Your task to perform on an android device: set the timer Image 0: 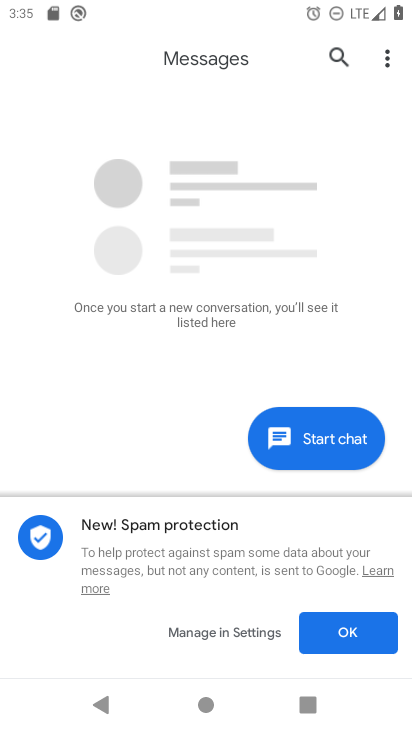
Step 0: press home button
Your task to perform on an android device: set the timer Image 1: 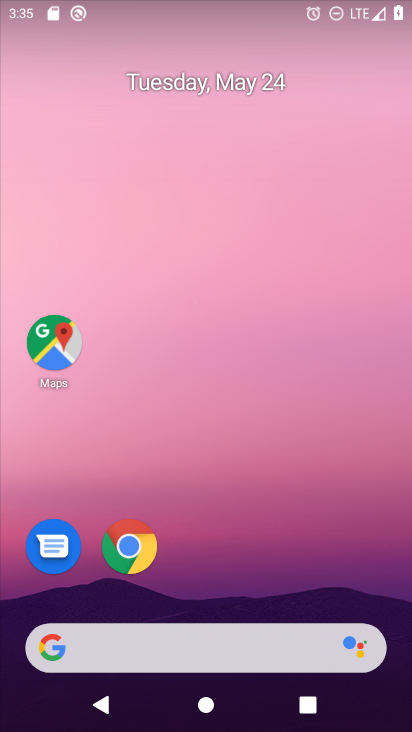
Step 1: drag from (216, 627) to (197, 86)
Your task to perform on an android device: set the timer Image 2: 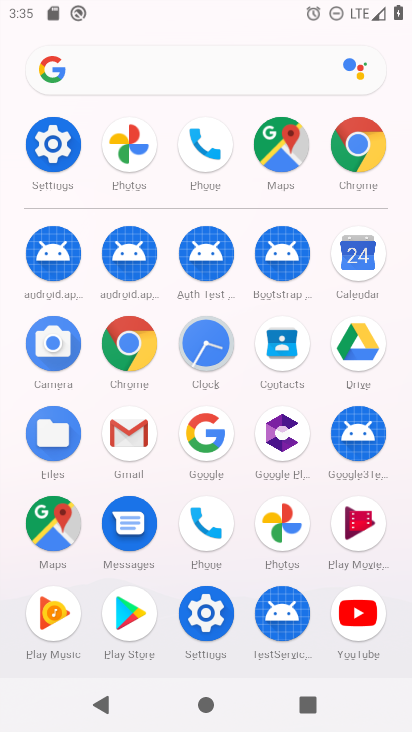
Step 2: click (212, 344)
Your task to perform on an android device: set the timer Image 3: 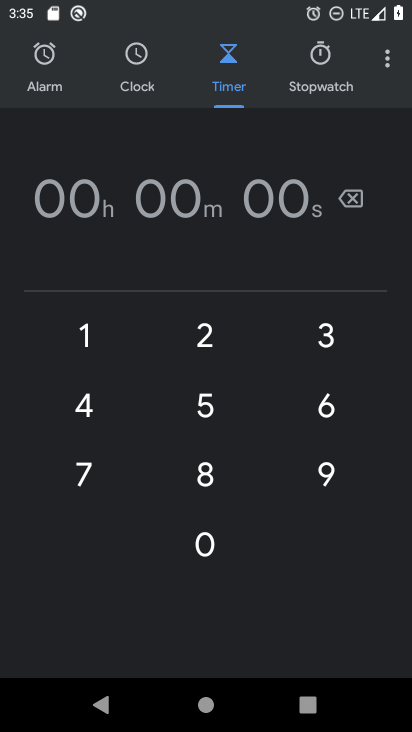
Step 3: click (212, 477)
Your task to perform on an android device: set the timer Image 4: 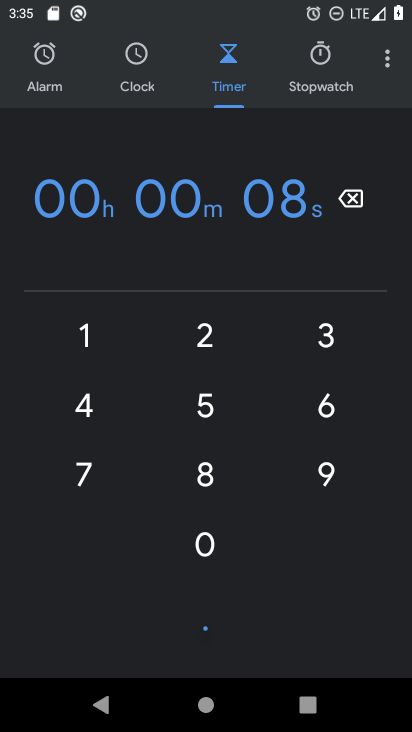
Step 4: click (311, 465)
Your task to perform on an android device: set the timer Image 5: 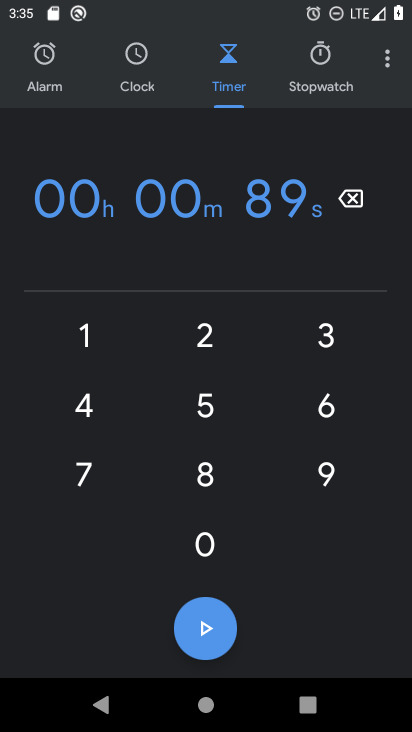
Step 5: click (328, 402)
Your task to perform on an android device: set the timer Image 6: 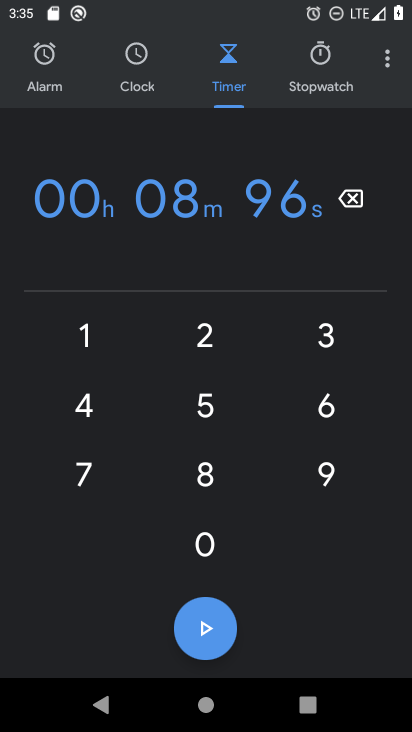
Step 6: click (225, 404)
Your task to perform on an android device: set the timer Image 7: 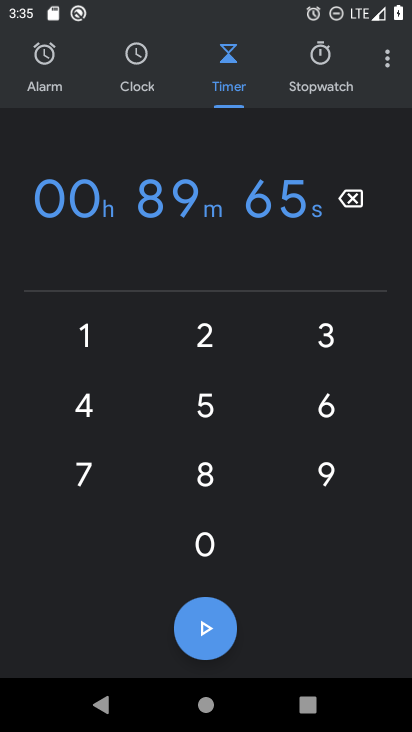
Step 7: click (169, 324)
Your task to perform on an android device: set the timer Image 8: 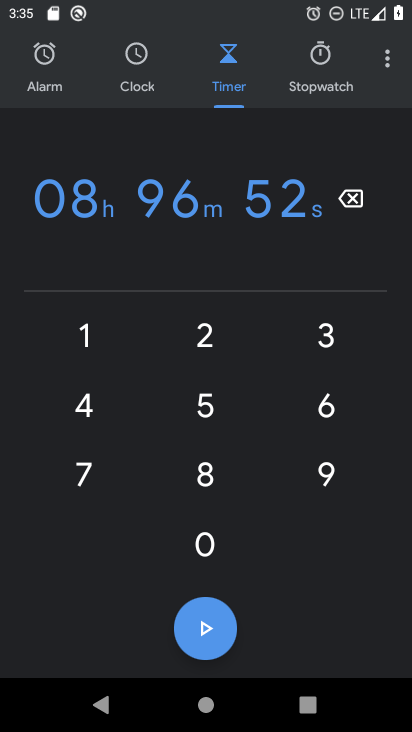
Step 8: click (298, 329)
Your task to perform on an android device: set the timer Image 9: 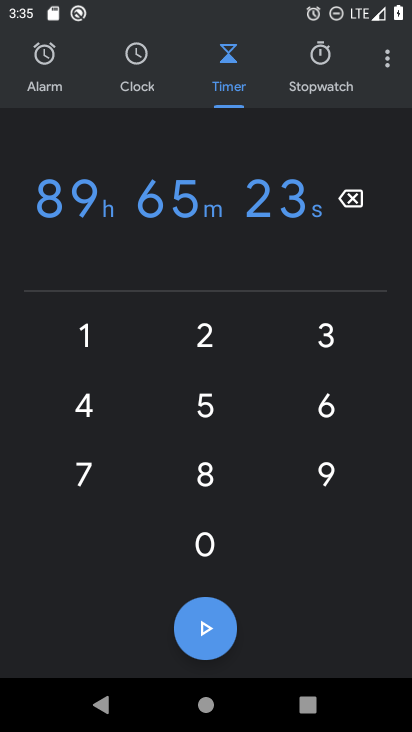
Step 9: click (233, 614)
Your task to perform on an android device: set the timer Image 10: 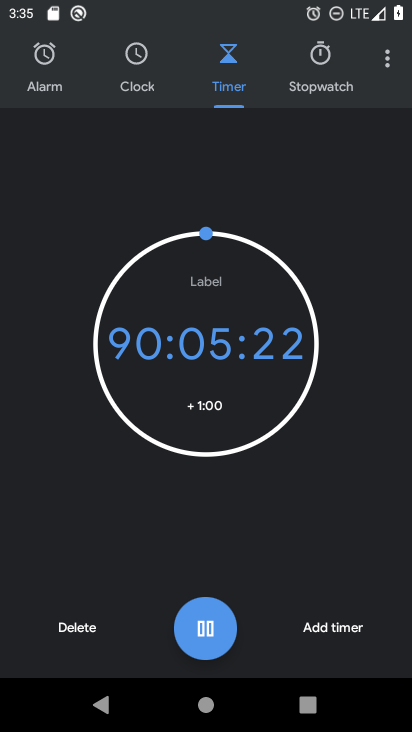
Step 10: task complete